Your task to perform on an android device: open device folders in google photos Image 0: 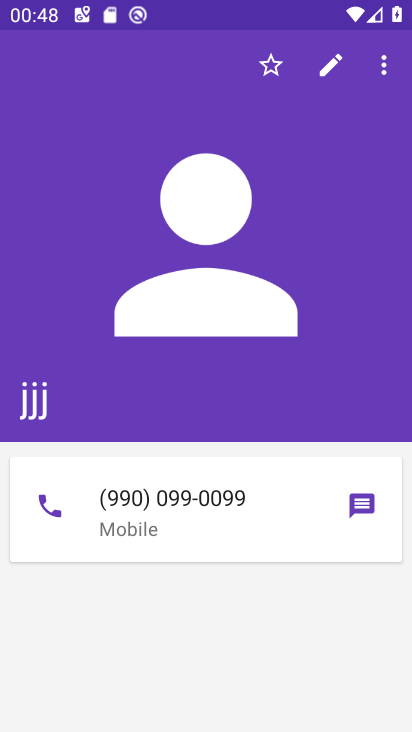
Step 0: press home button
Your task to perform on an android device: open device folders in google photos Image 1: 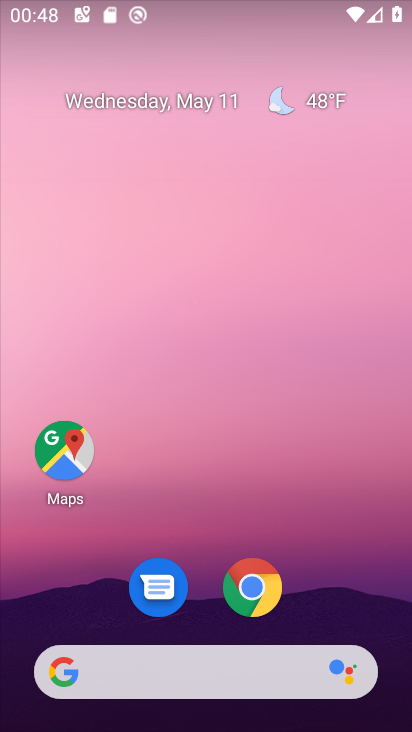
Step 1: drag from (341, 602) to (246, 269)
Your task to perform on an android device: open device folders in google photos Image 2: 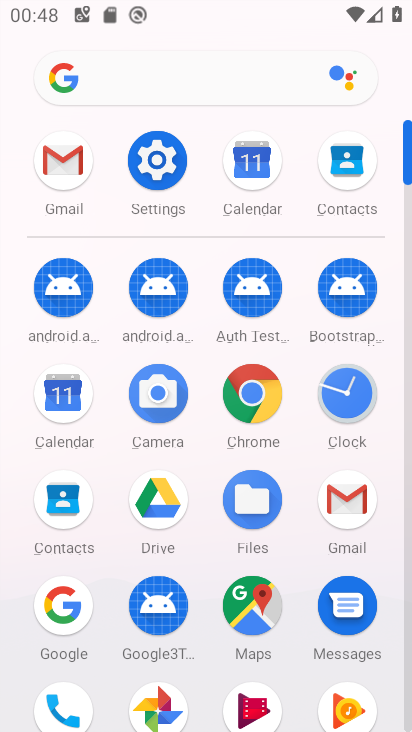
Step 2: click (162, 706)
Your task to perform on an android device: open device folders in google photos Image 3: 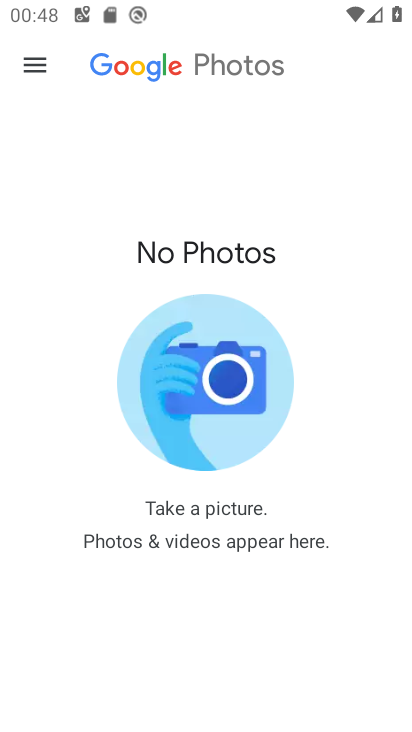
Step 3: click (26, 75)
Your task to perform on an android device: open device folders in google photos Image 4: 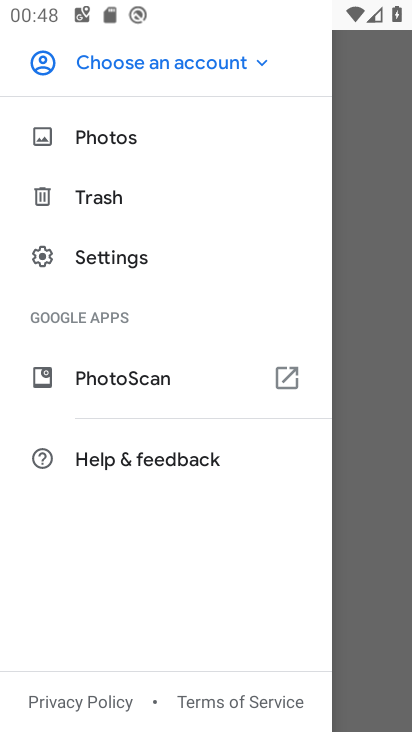
Step 4: click (203, 59)
Your task to perform on an android device: open device folders in google photos Image 5: 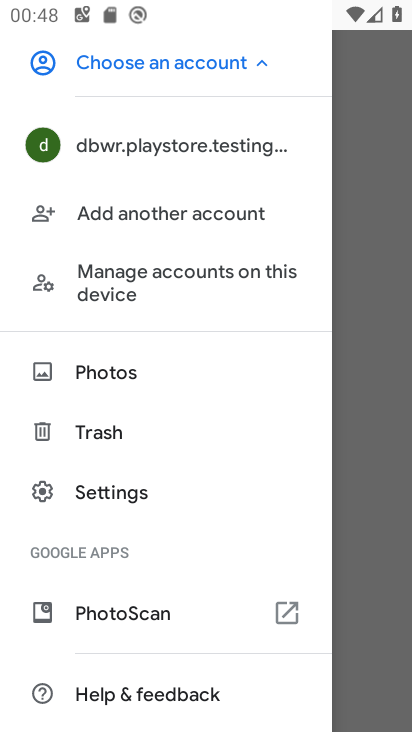
Step 5: click (221, 145)
Your task to perform on an android device: open device folders in google photos Image 6: 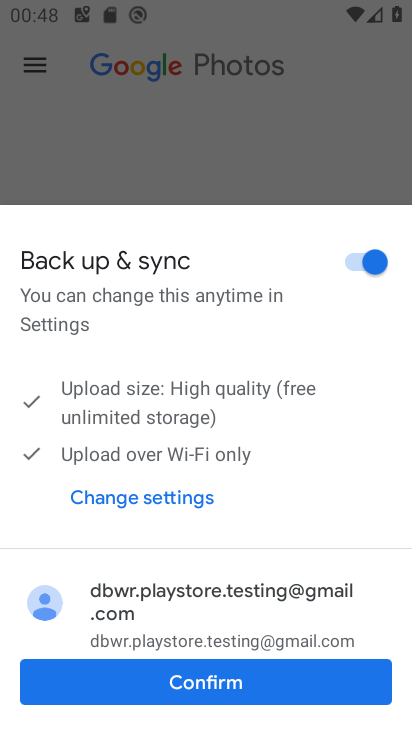
Step 6: click (239, 691)
Your task to perform on an android device: open device folders in google photos Image 7: 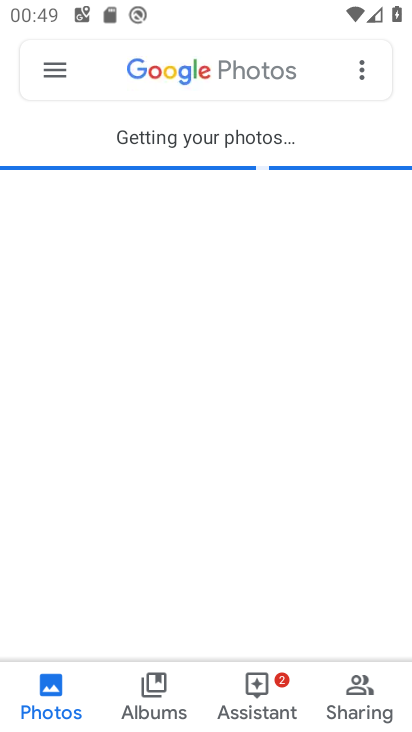
Step 7: click (61, 91)
Your task to perform on an android device: open device folders in google photos Image 8: 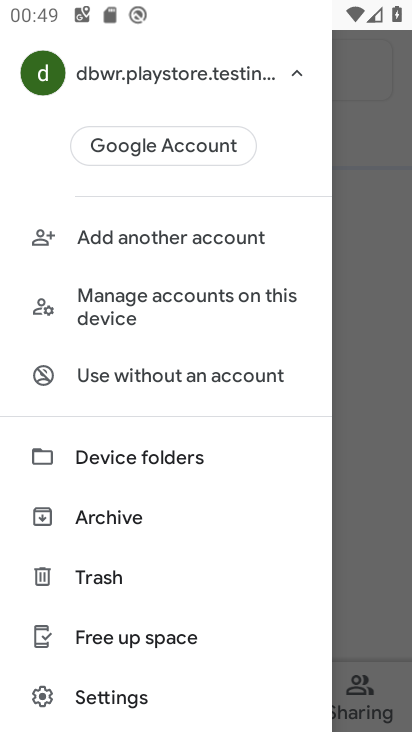
Step 8: click (109, 447)
Your task to perform on an android device: open device folders in google photos Image 9: 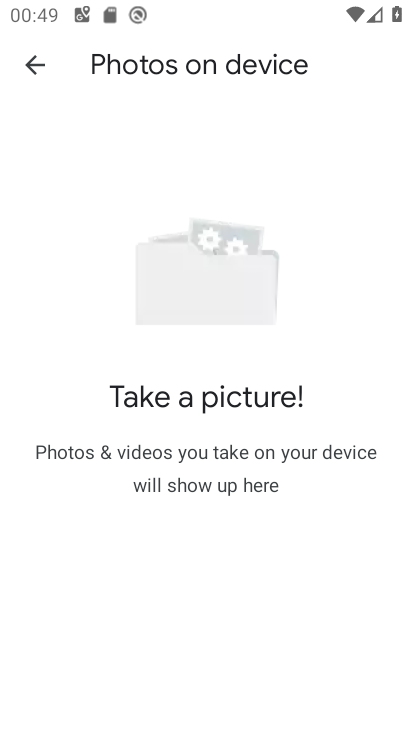
Step 9: task complete